Your task to perform on an android device: Open the stopwatch Image 0: 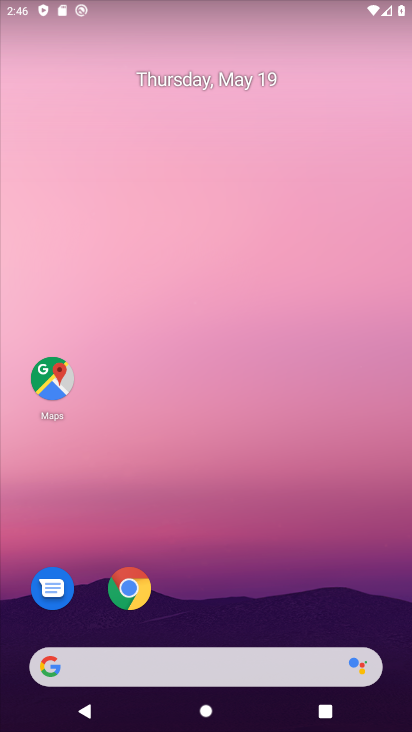
Step 0: drag from (302, 502) to (306, 189)
Your task to perform on an android device: Open the stopwatch Image 1: 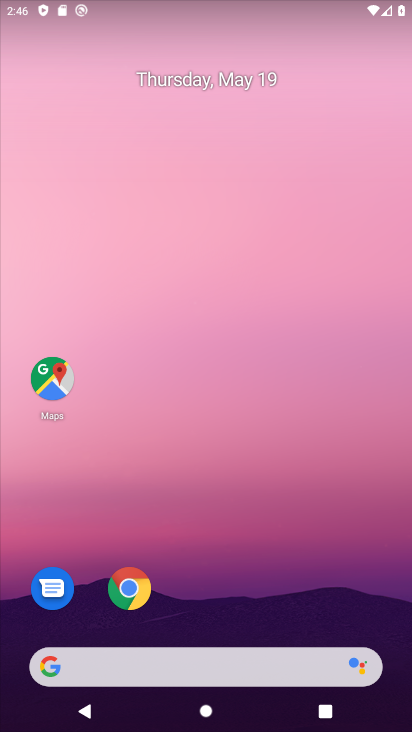
Step 1: drag from (281, 581) to (255, 219)
Your task to perform on an android device: Open the stopwatch Image 2: 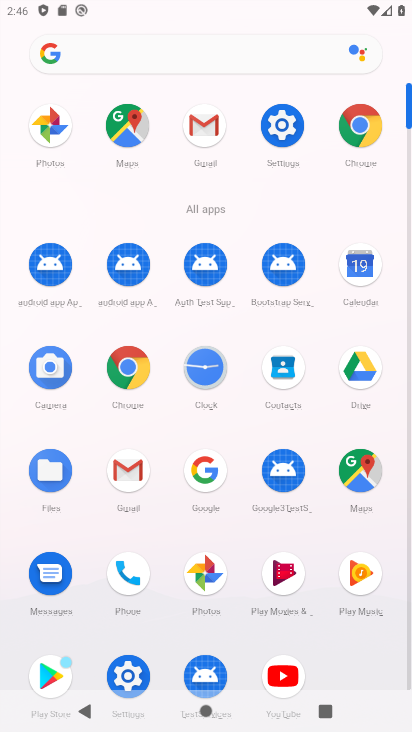
Step 2: click (208, 376)
Your task to perform on an android device: Open the stopwatch Image 3: 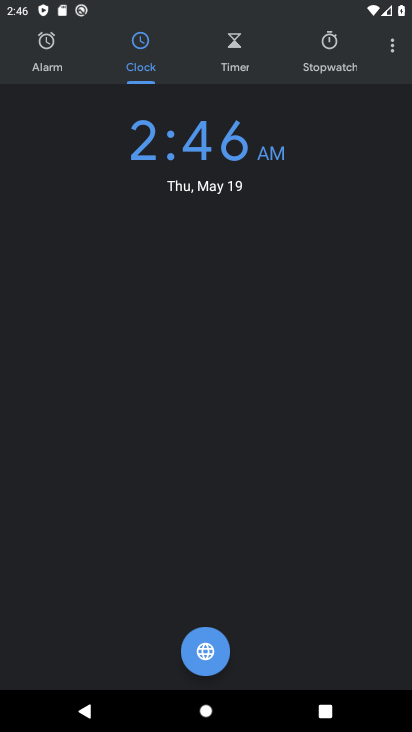
Step 3: click (316, 58)
Your task to perform on an android device: Open the stopwatch Image 4: 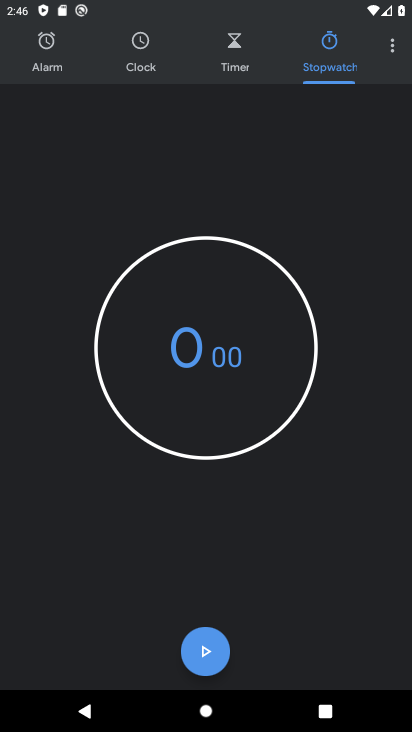
Step 4: task complete